Your task to perform on an android device: set the timer Image 0: 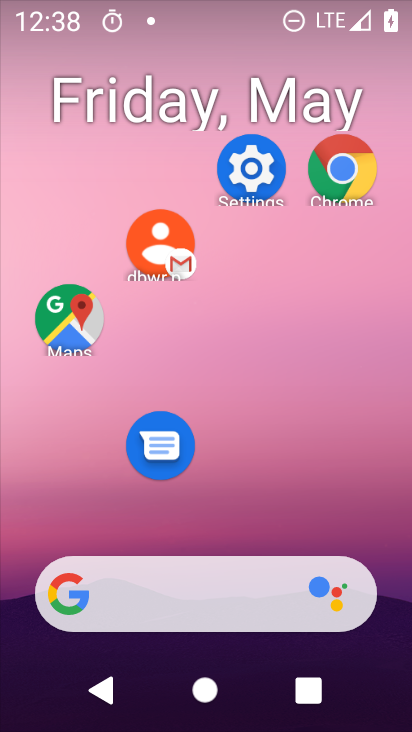
Step 0: drag from (223, 543) to (209, 67)
Your task to perform on an android device: set the timer Image 1: 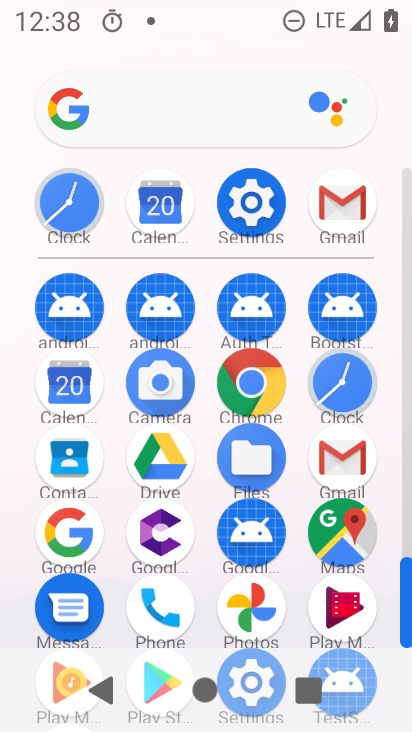
Step 1: click (333, 388)
Your task to perform on an android device: set the timer Image 2: 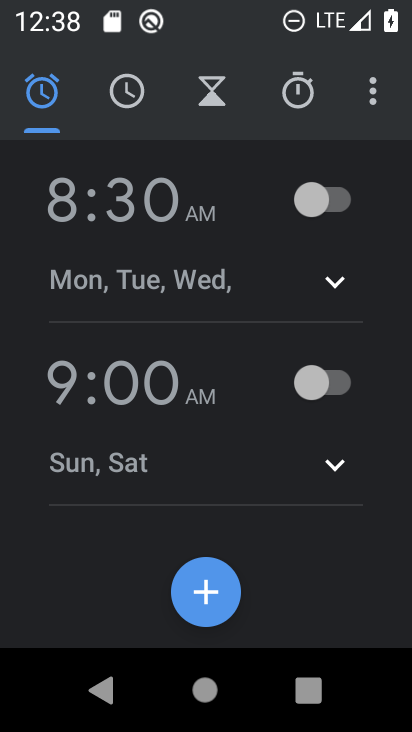
Step 2: click (218, 95)
Your task to perform on an android device: set the timer Image 3: 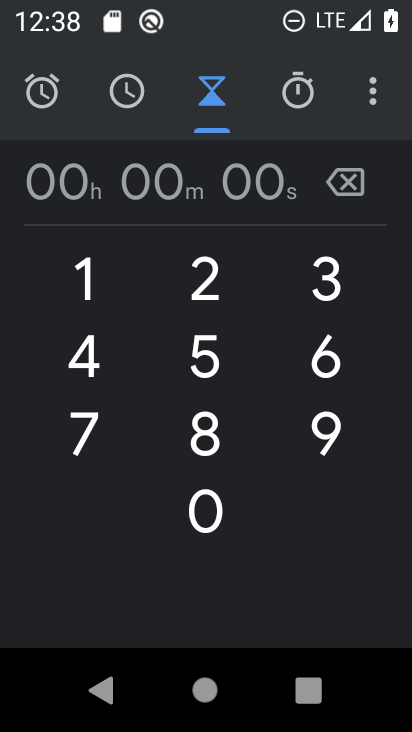
Step 3: click (193, 290)
Your task to perform on an android device: set the timer Image 4: 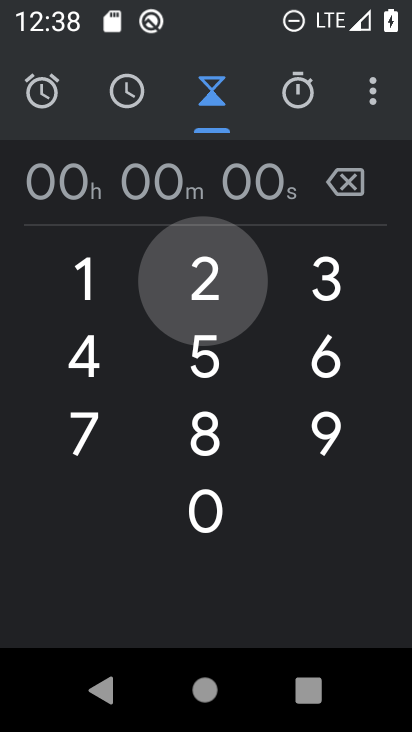
Step 4: click (349, 274)
Your task to perform on an android device: set the timer Image 5: 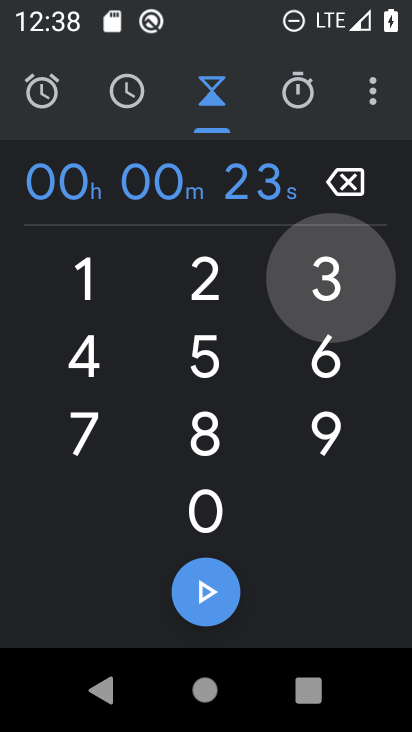
Step 5: click (261, 354)
Your task to perform on an android device: set the timer Image 6: 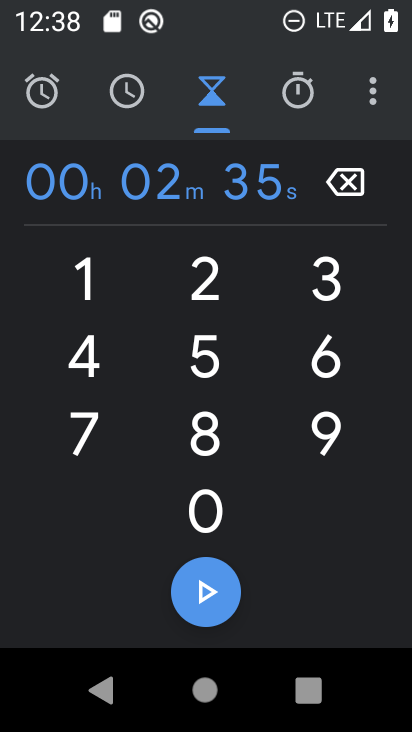
Step 6: click (210, 610)
Your task to perform on an android device: set the timer Image 7: 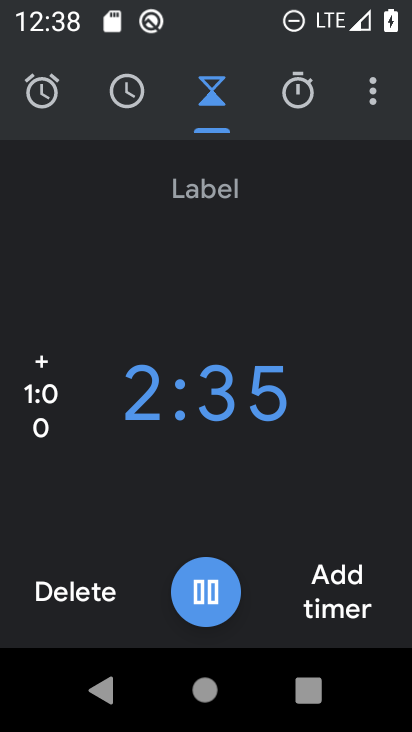
Step 7: task complete